Your task to perform on an android device: check battery use Image 0: 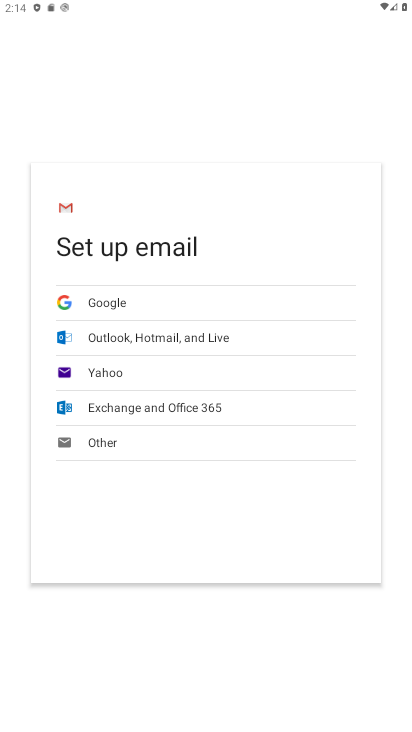
Step 0: press home button
Your task to perform on an android device: check battery use Image 1: 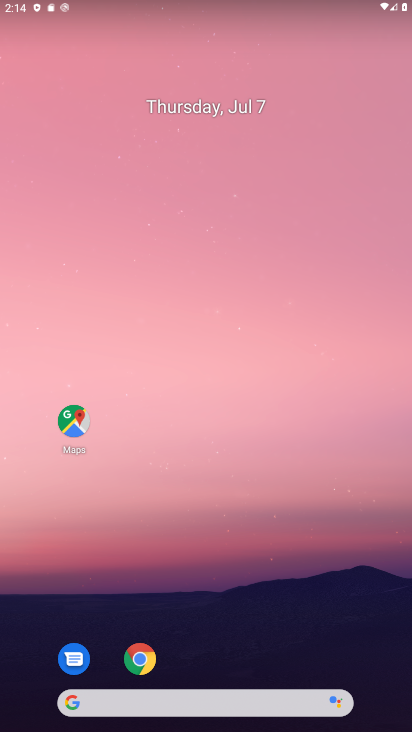
Step 1: drag from (219, 666) to (225, 13)
Your task to perform on an android device: check battery use Image 2: 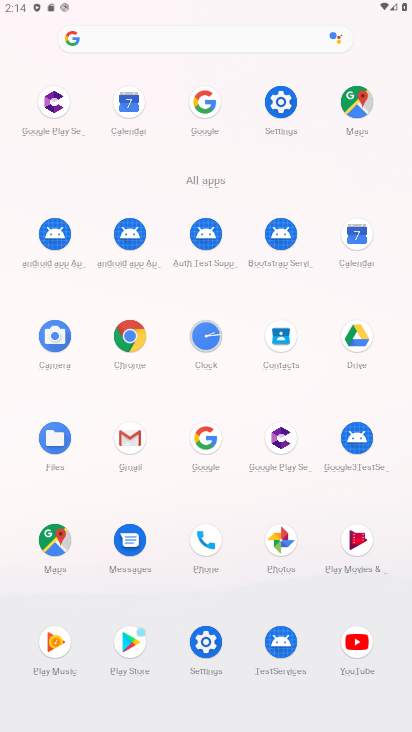
Step 2: click (277, 98)
Your task to perform on an android device: check battery use Image 3: 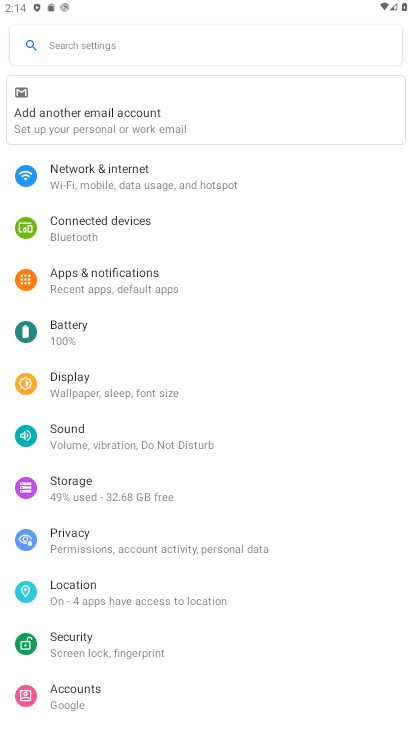
Step 3: click (90, 335)
Your task to perform on an android device: check battery use Image 4: 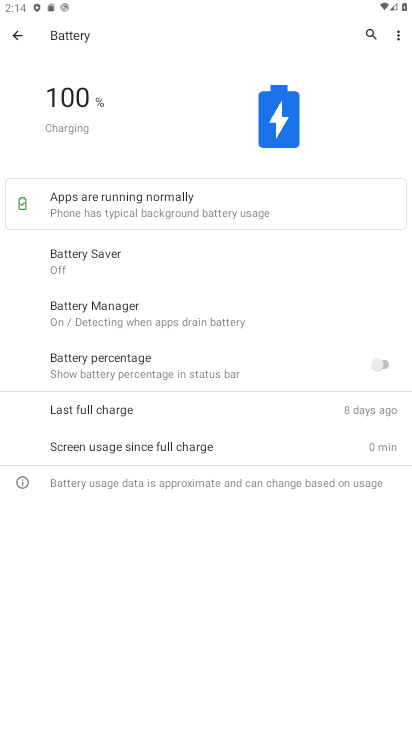
Step 4: click (394, 35)
Your task to perform on an android device: check battery use Image 5: 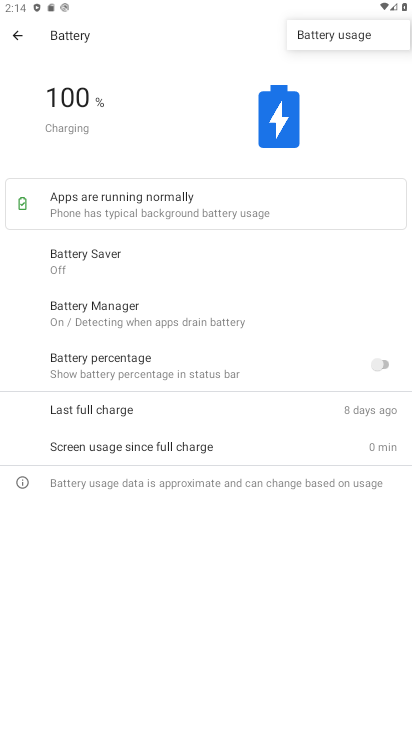
Step 5: click (332, 34)
Your task to perform on an android device: check battery use Image 6: 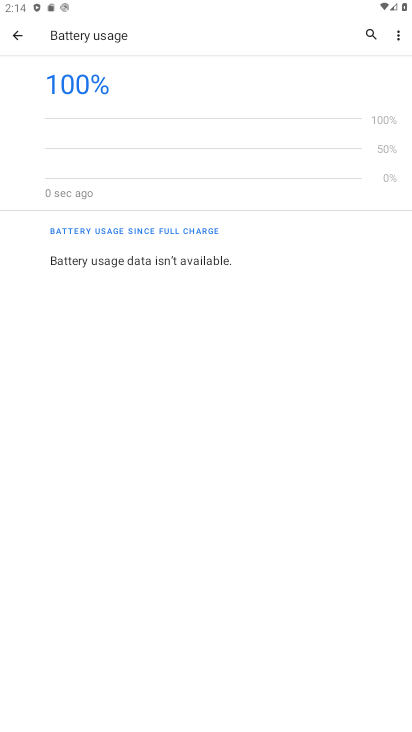
Step 6: task complete